Your task to perform on an android device: clear all cookies in the chrome app Image 0: 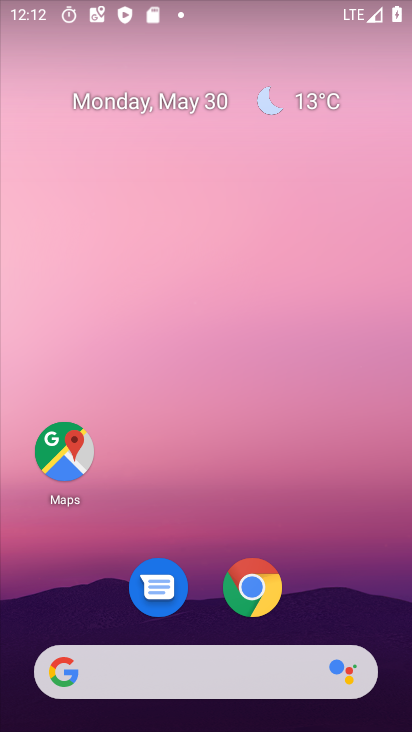
Step 0: click (248, 583)
Your task to perform on an android device: clear all cookies in the chrome app Image 1: 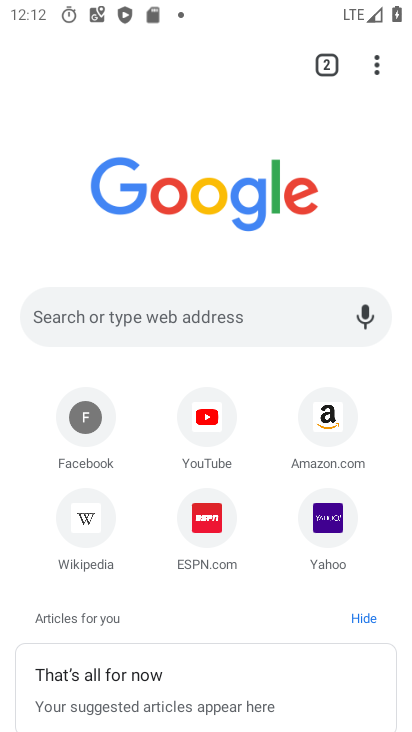
Step 1: drag from (379, 57) to (267, 541)
Your task to perform on an android device: clear all cookies in the chrome app Image 2: 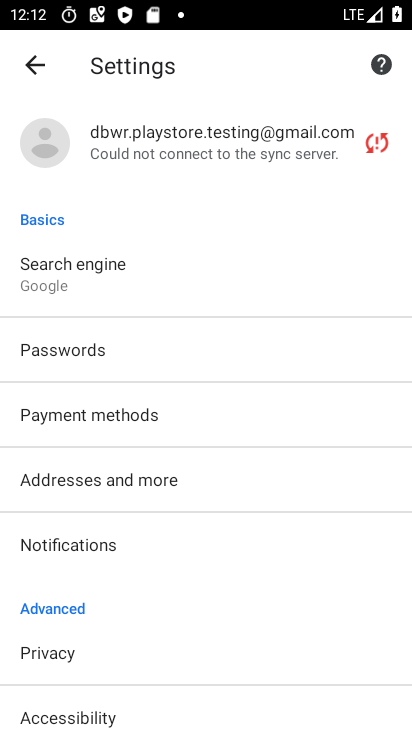
Step 2: click (27, 58)
Your task to perform on an android device: clear all cookies in the chrome app Image 3: 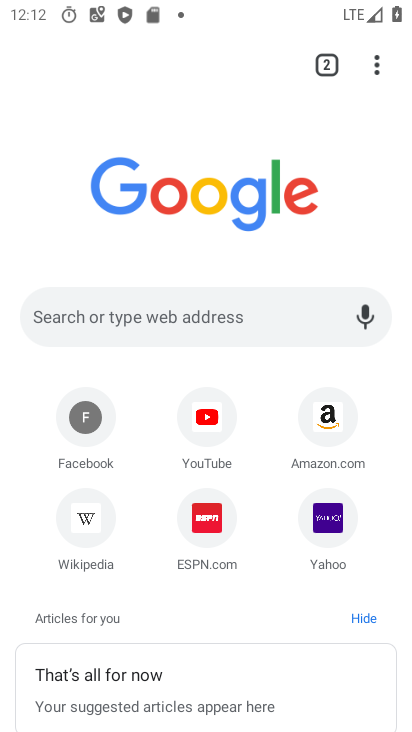
Step 3: task complete